Your task to perform on an android device: toggle notifications settings in the gmail app Image 0: 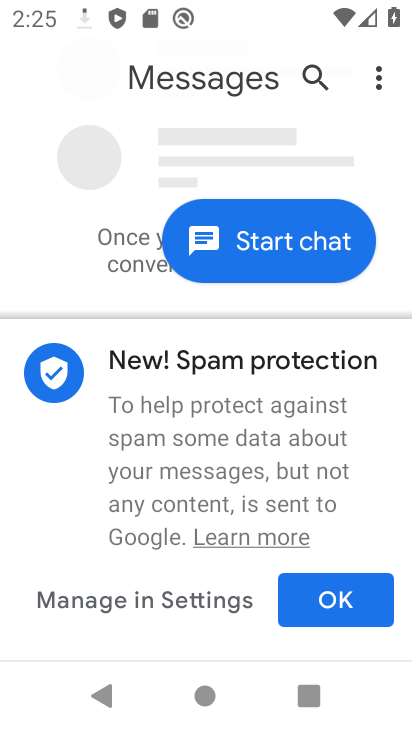
Step 0: press home button
Your task to perform on an android device: toggle notifications settings in the gmail app Image 1: 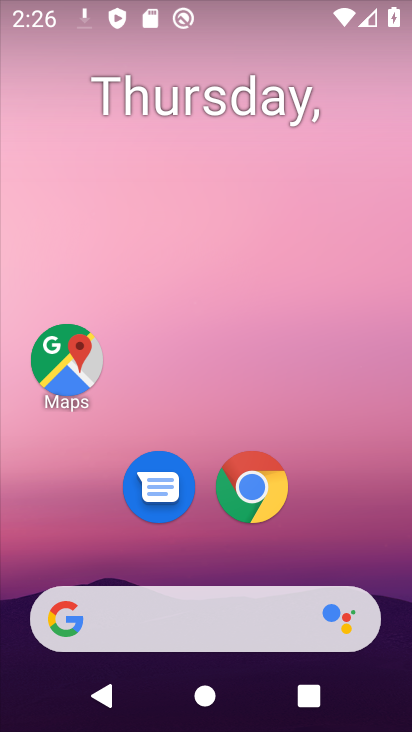
Step 1: drag from (320, 518) to (286, 182)
Your task to perform on an android device: toggle notifications settings in the gmail app Image 2: 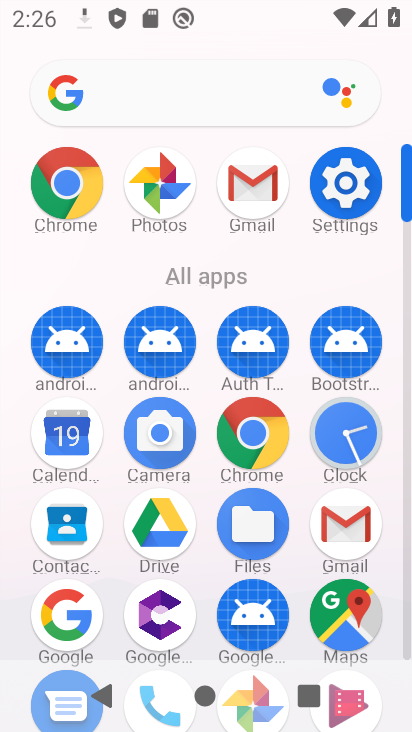
Step 2: click (316, 531)
Your task to perform on an android device: toggle notifications settings in the gmail app Image 3: 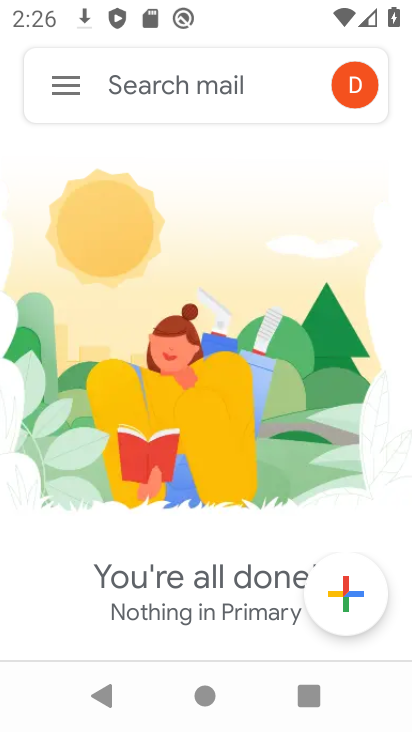
Step 3: click (67, 98)
Your task to perform on an android device: toggle notifications settings in the gmail app Image 4: 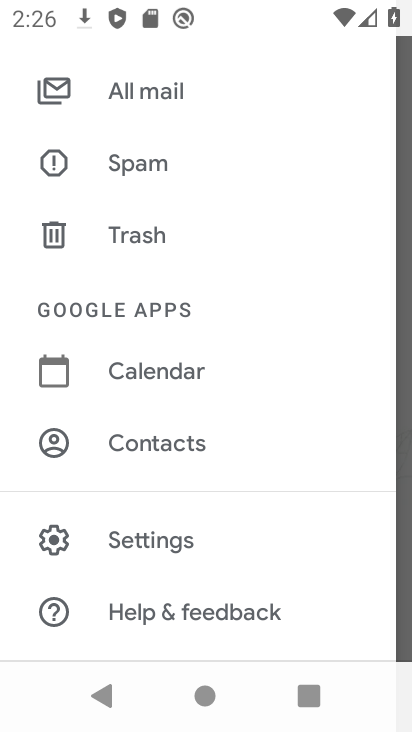
Step 4: drag from (224, 542) to (223, 171)
Your task to perform on an android device: toggle notifications settings in the gmail app Image 5: 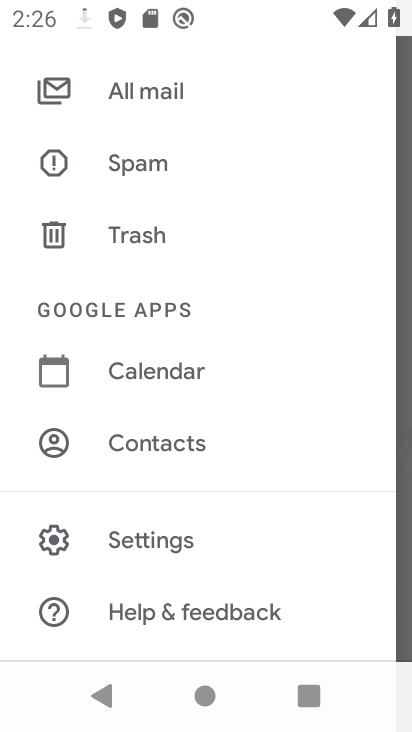
Step 5: click (150, 532)
Your task to perform on an android device: toggle notifications settings in the gmail app Image 6: 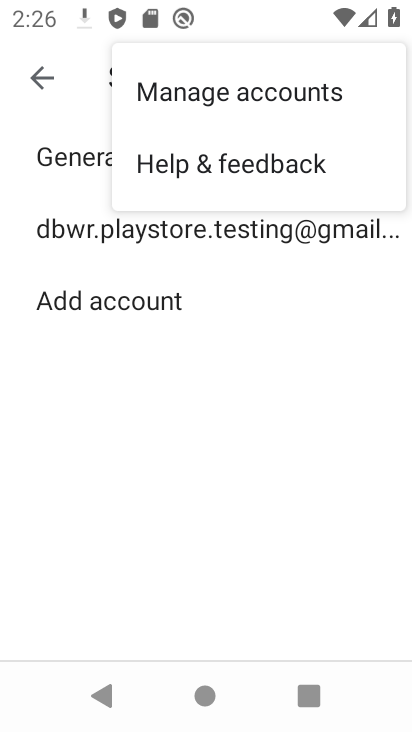
Step 6: press back button
Your task to perform on an android device: toggle notifications settings in the gmail app Image 7: 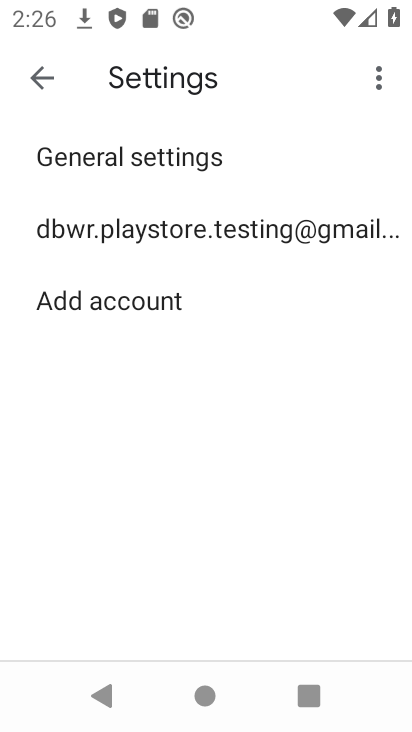
Step 7: press back button
Your task to perform on an android device: toggle notifications settings in the gmail app Image 8: 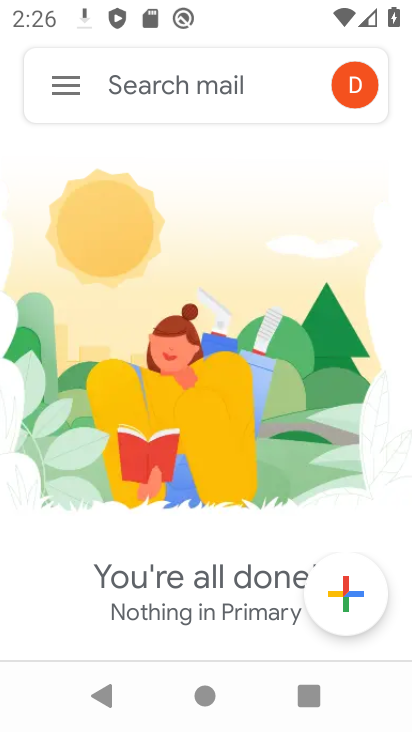
Step 8: click (46, 84)
Your task to perform on an android device: toggle notifications settings in the gmail app Image 9: 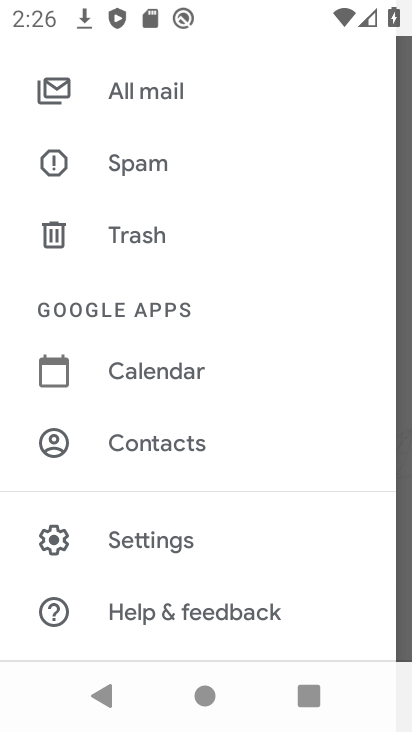
Step 9: task complete